Your task to perform on an android device: empty trash in the gmail app Image 0: 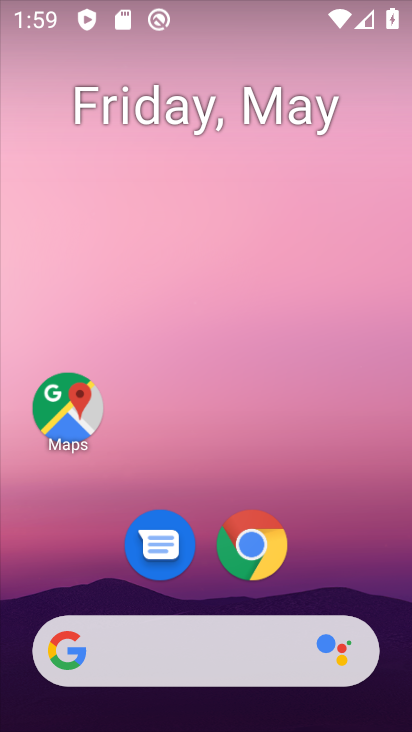
Step 0: drag from (98, 608) to (249, 133)
Your task to perform on an android device: empty trash in the gmail app Image 1: 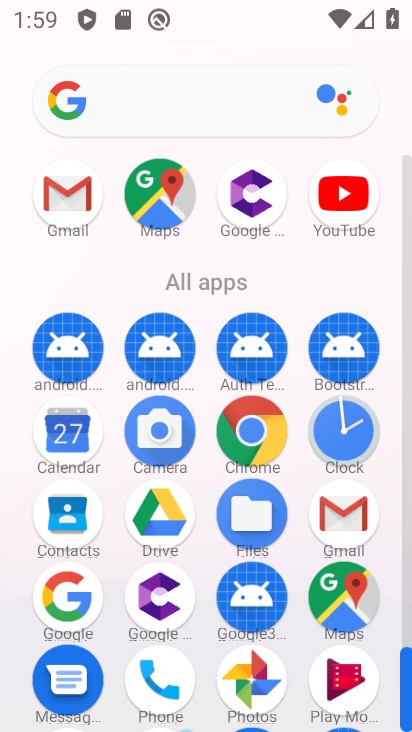
Step 1: click (50, 192)
Your task to perform on an android device: empty trash in the gmail app Image 2: 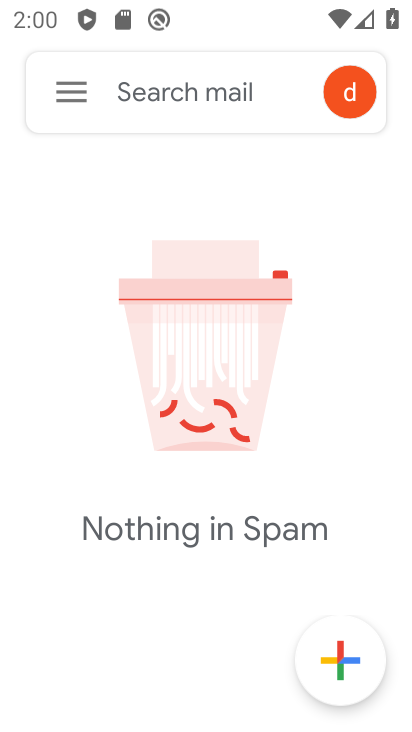
Step 2: click (84, 101)
Your task to perform on an android device: empty trash in the gmail app Image 3: 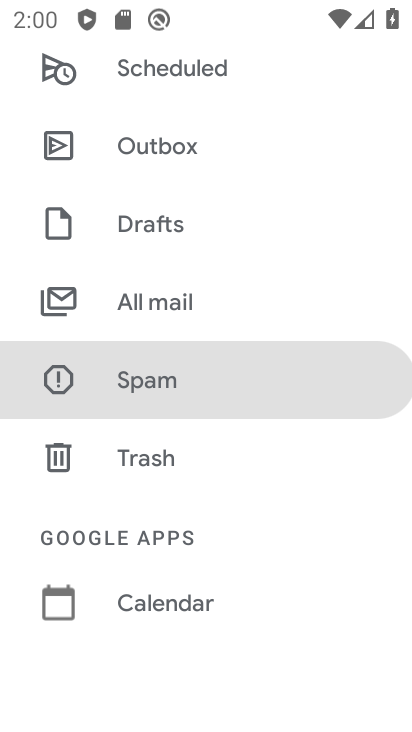
Step 3: click (220, 473)
Your task to perform on an android device: empty trash in the gmail app Image 4: 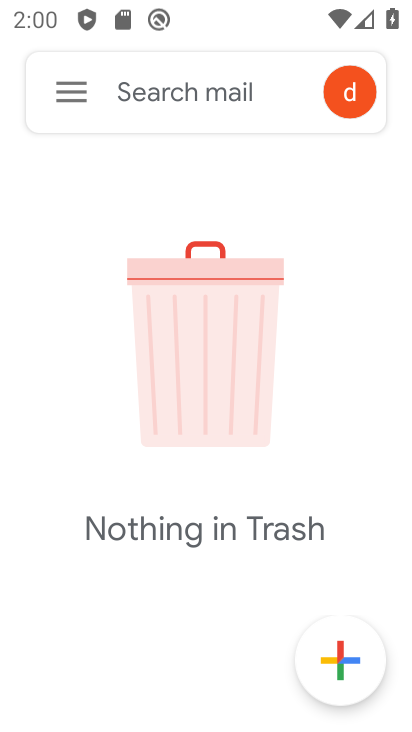
Step 4: task complete